Your task to perform on an android device: Open network settings Image 0: 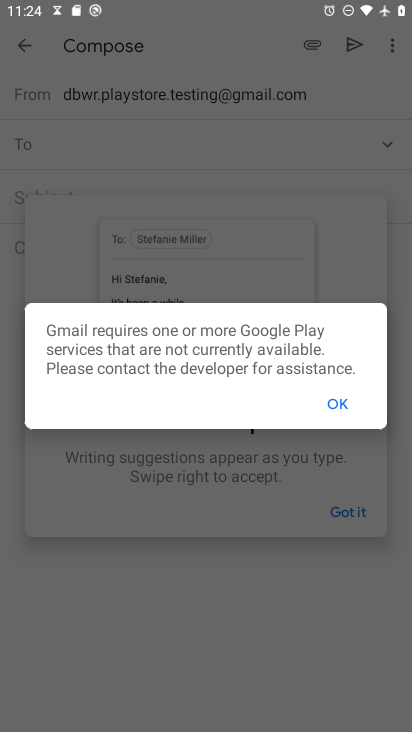
Step 0: press home button
Your task to perform on an android device: Open network settings Image 1: 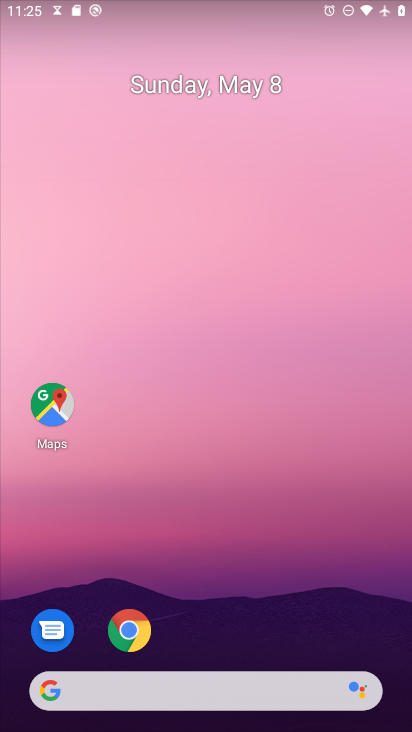
Step 1: drag from (216, 688) to (291, 244)
Your task to perform on an android device: Open network settings Image 2: 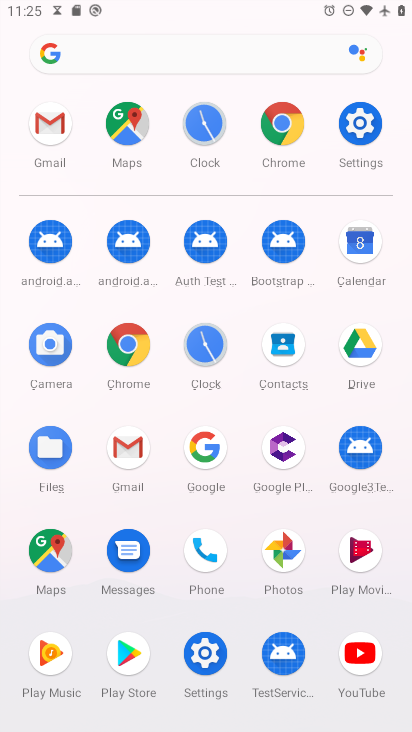
Step 2: click (364, 121)
Your task to perform on an android device: Open network settings Image 3: 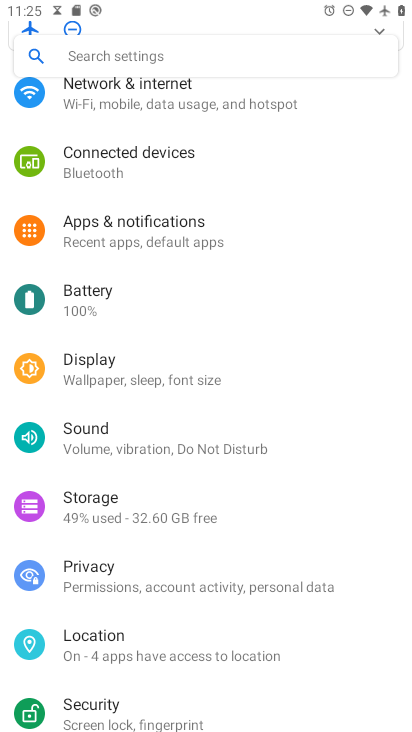
Step 3: click (147, 92)
Your task to perform on an android device: Open network settings Image 4: 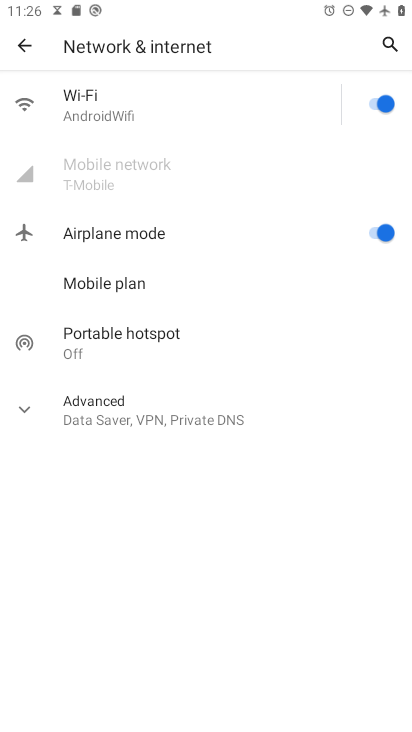
Step 4: task complete